Your task to perform on an android device: turn on wifi Image 0: 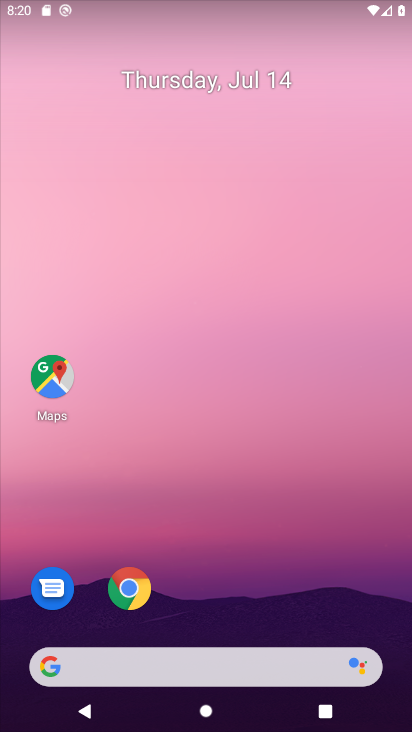
Step 0: drag from (348, 597) to (366, 71)
Your task to perform on an android device: turn on wifi Image 1: 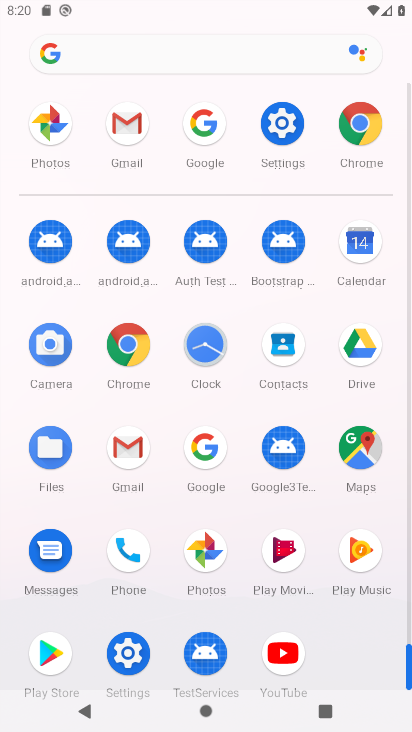
Step 1: click (279, 137)
Your task to perform on an android device: turn on wifi Image 2: 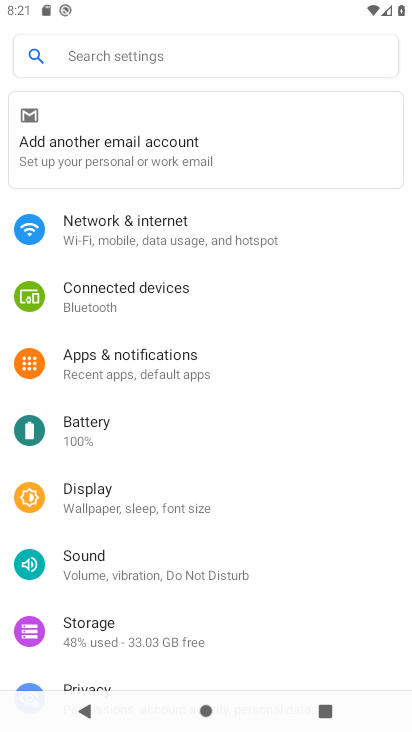
Step 2: drag from (352, 532) to (353, 442)
Your task to perform on an android device: turn on wifi Image 3: 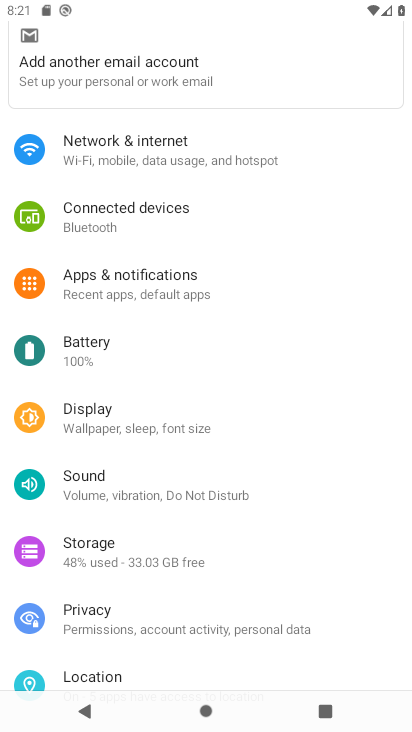
Step 3: drag from (372, 581) to (390, 461)
Your task to perform on an android device: turn on wifi Image 4: 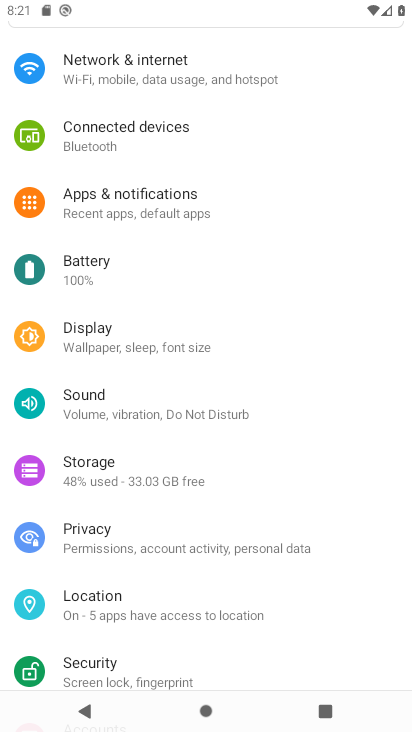
Step 4: drag from (380, 577) to (373, 322)
Your task to perform on an android device: turn on wifi Image 5: 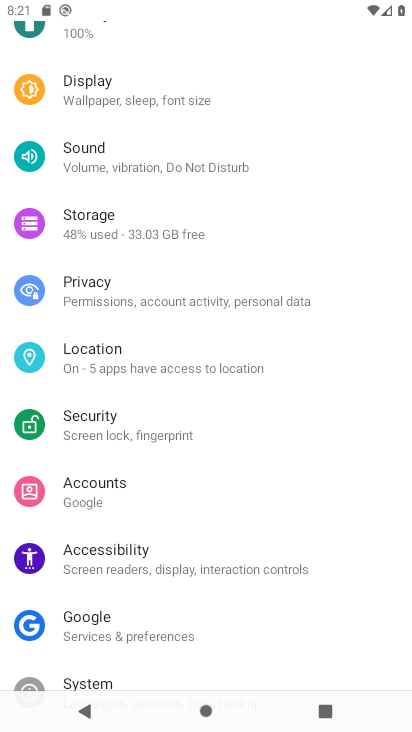
Step 5: drag from (364, 466) to (361, 343)
Your task to perform on an android device: turn on wifi Image 6: 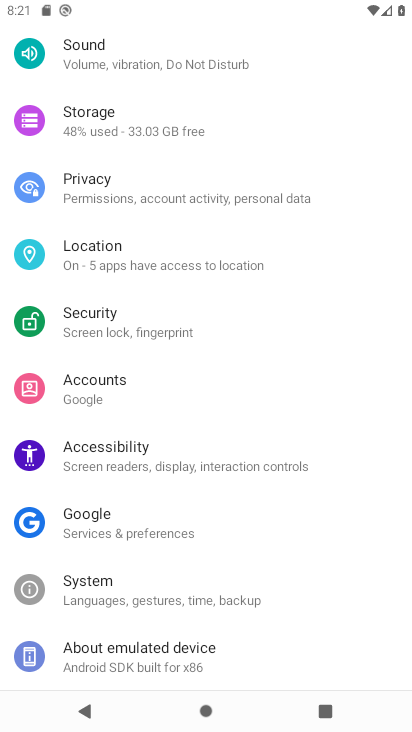
Step 6: drag from (345, 508) to (351, 368)
Your task to perform on an android device: turn on wifi Image 7: 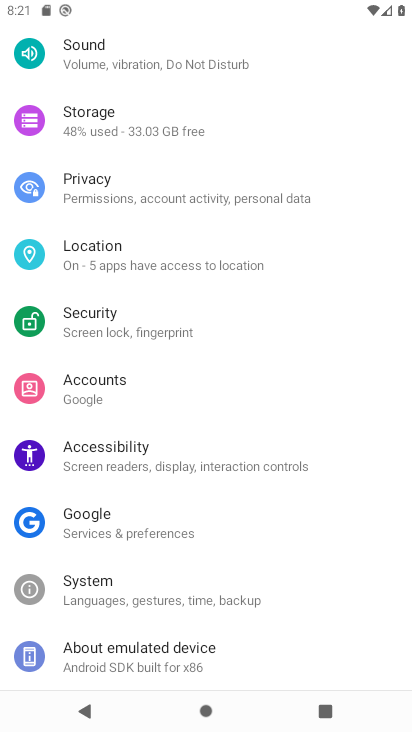
Step 7: drag from (341, 311) to (341, 410)
Your task to perform on an android device: turn on wifi Image 8: 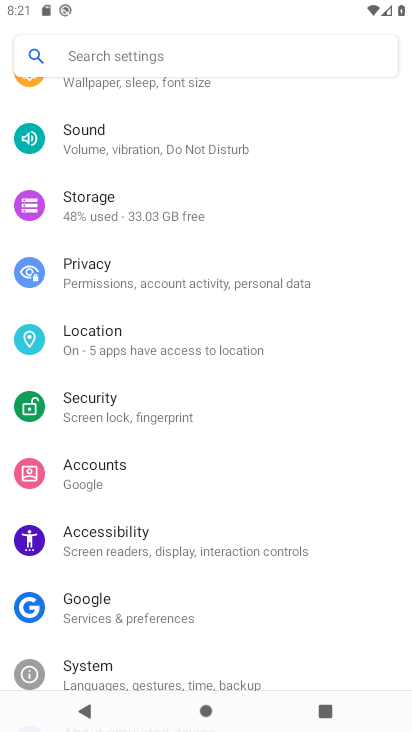
Step 8: drag from (350, 228) to (352, 312)
Your task to perform on an android device: turn on wifi Image 9: 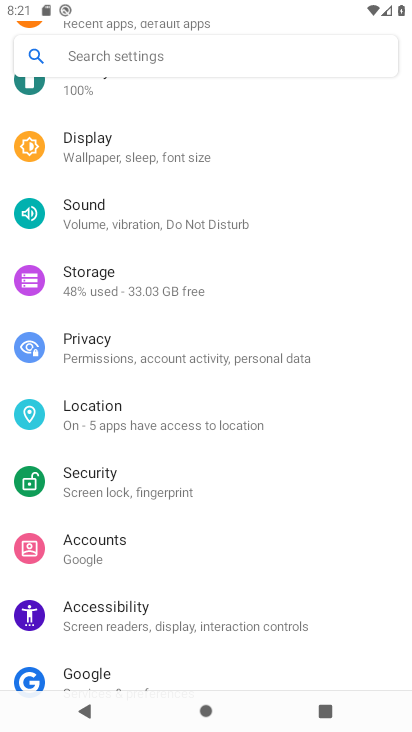
Step 9: drag from (348, 251) to (344, 357)
Your task to perform on an android device: turn on wifi Image 10: 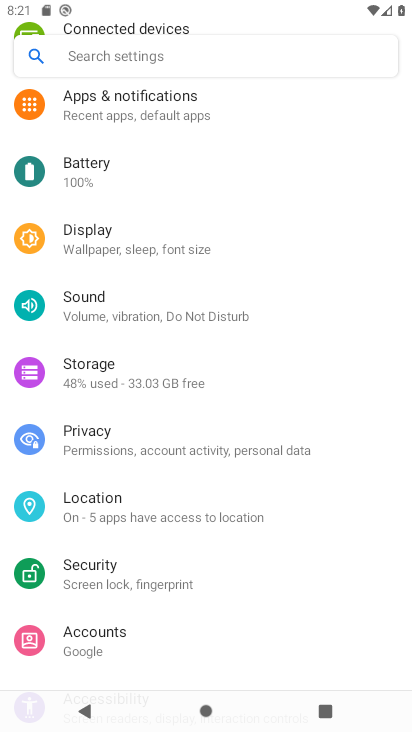
Step 10: drag from (342, 261) to (344, 370)
Your task to perform on an android device: turn on wifi Image 11: 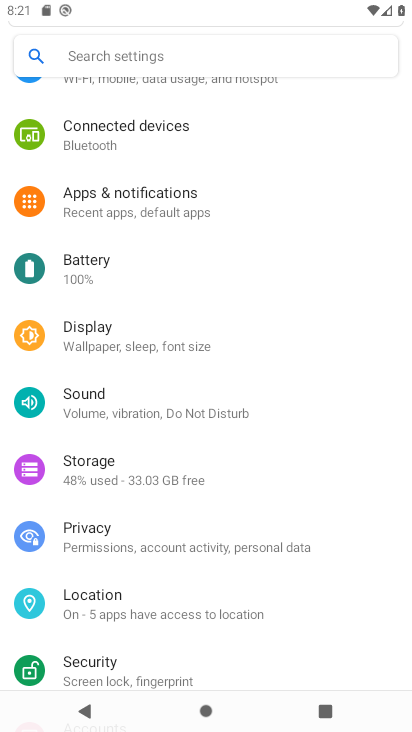
Step 11: drag from (342, 220) to (344, 317)
Your task to perform on an android device: turn on wifi Image 12: 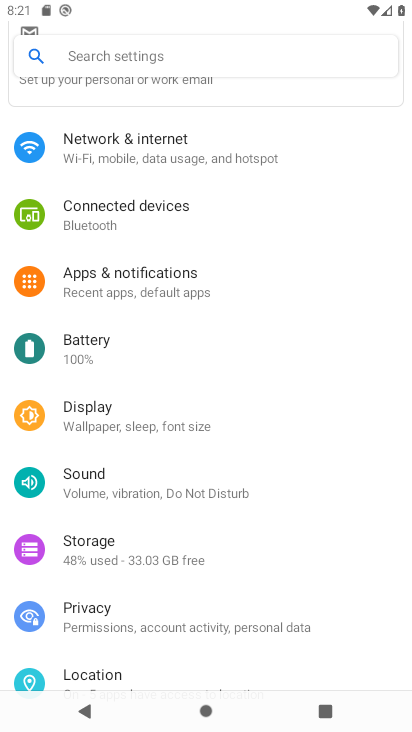
Step 12: drag from (325, 169) to (324, 290)
Your task to perform on an android device: turn on wifi Image 13: 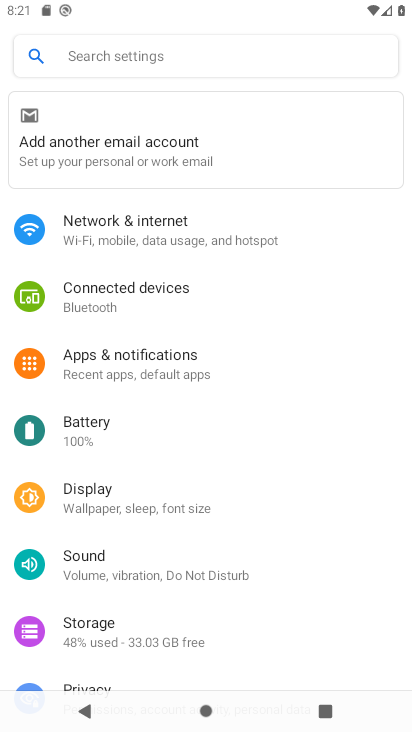
Step 13: click (247, 234)
Your task to perform on an android device: turn on wifi Image 14: 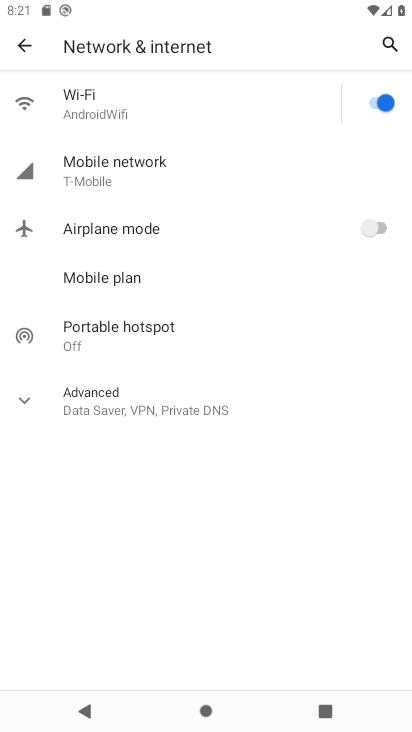
Step 14: task complete